Your task to perform on an android device: Open the calendar app, open the side menu, and click the "Day" option Image 0: 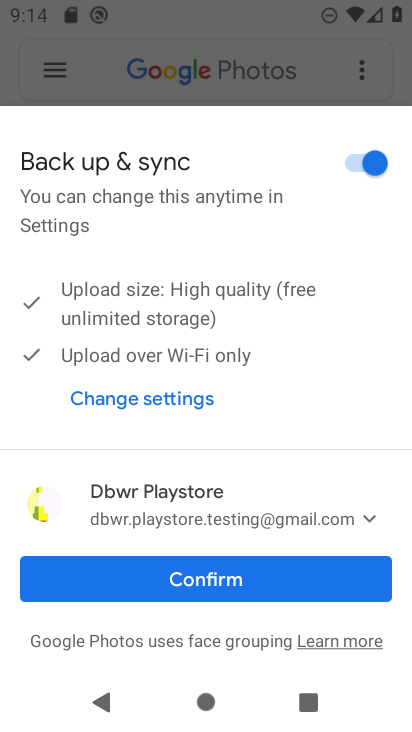
Step 0: press home button
Your task to perform on an android device: Open the calendar app, open the side menu, and click the "Day" option Image 1: 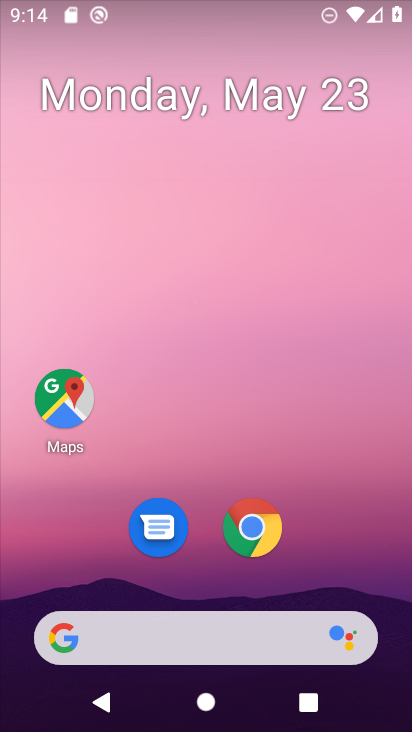
Step 1: drag from (292, 437) to (283, 23)
Your task to perform on an android device: Open the calendar app, open the side menu, and click the "Day" option Image 2: 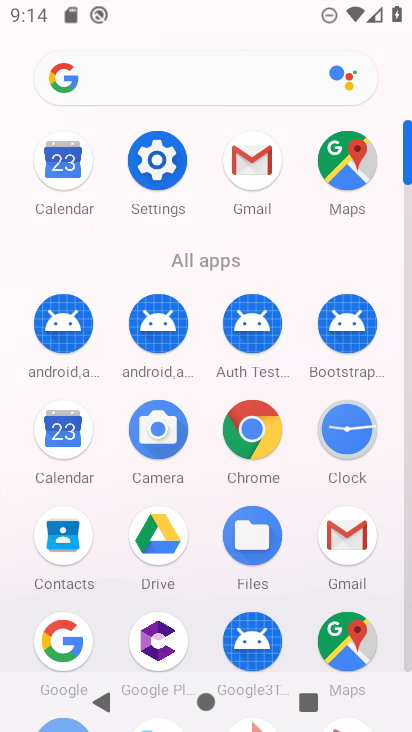
Step 2: click (66, 169)
Your task to perform on an android device: Open the calendar app, open the side menu, and click the "Day" option Image 3: 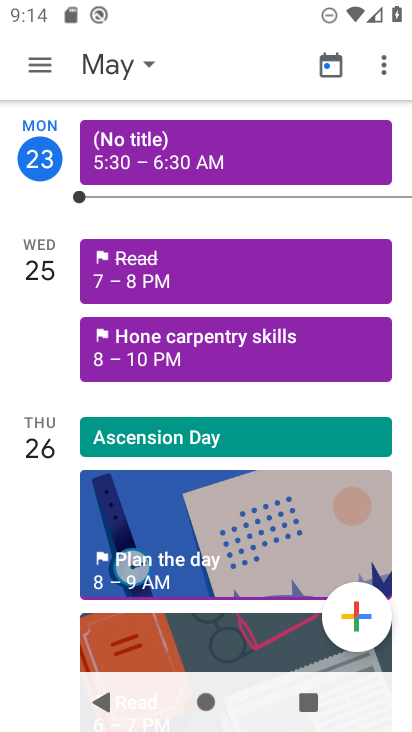
Step 3: click (48, 66)
Your task to perform on an android device: Open the calendar app, open the side menu, and click the "Day" option Image 4: 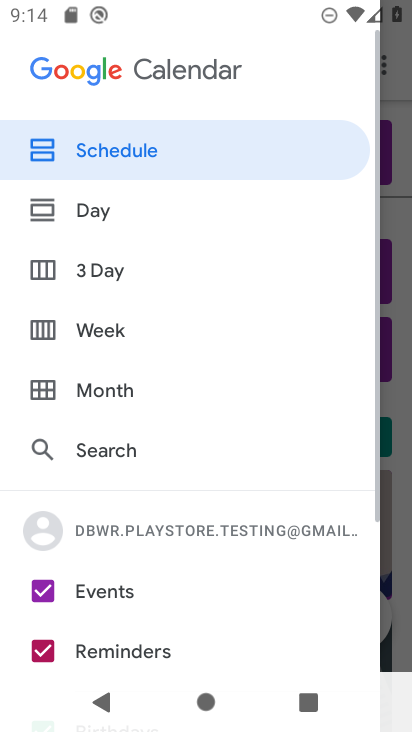
Step 4: click (87, 201)
Your task to perform on an android device: Open the calendar app, open the side menu, and click the "Day" option Image 5: 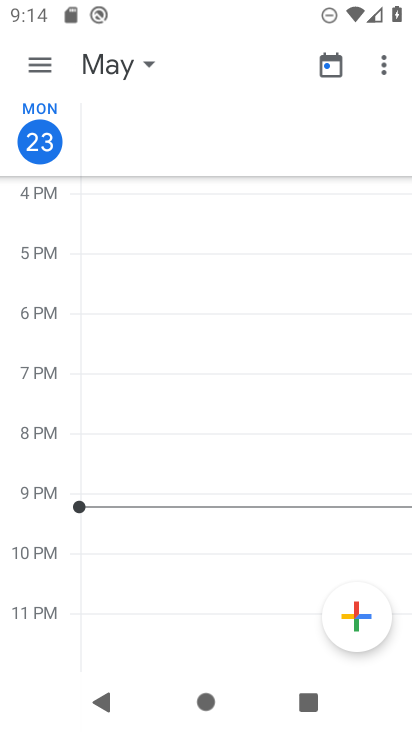
Step 5: task complete